Your task to perform on an android device: change the clock display to analog Image 0: 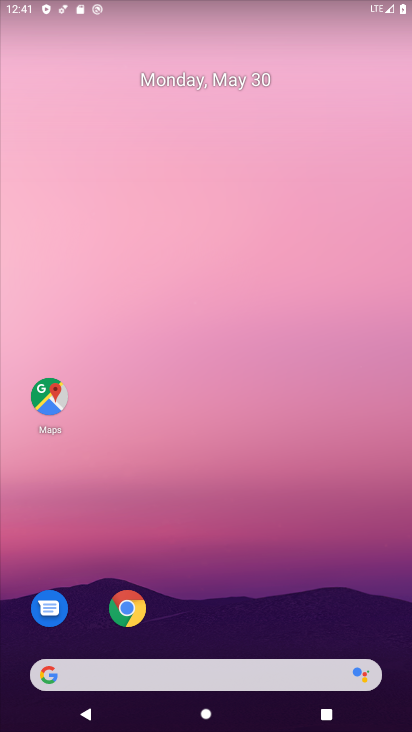
Step 0: drag from (217, 669) to (361, 25)
Your task to perform on an android device: change the clock display to analog Image 1: 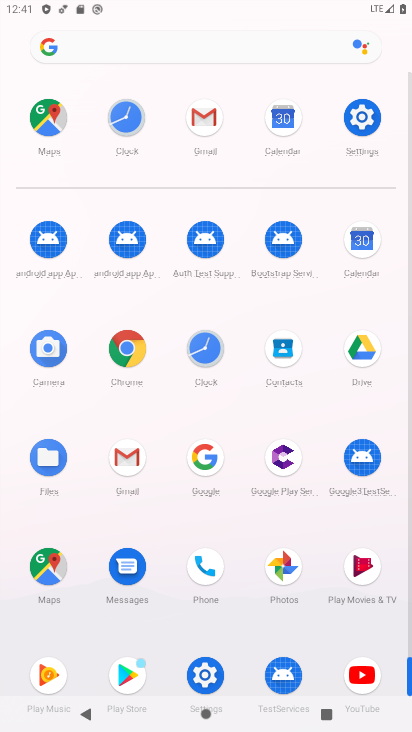
Step 1: click (196, 366)
Your task to perform on an android device: change the clock display to analog Image 2: 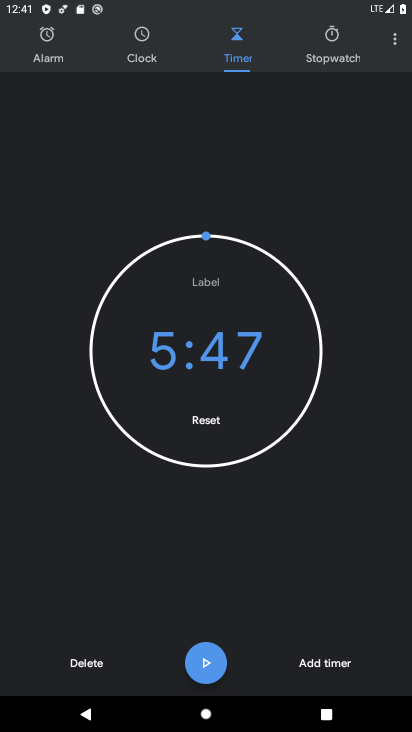
Step 2: click (100, 667)
Your task to perform on an android device: change the clock display to analog Image 3: 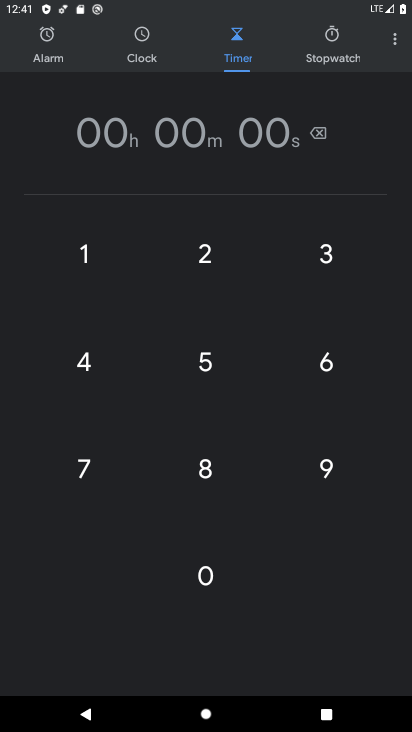
Step 3: click (397, 42)
Your task to perform on an android device: change the clock display to analog Image 4: 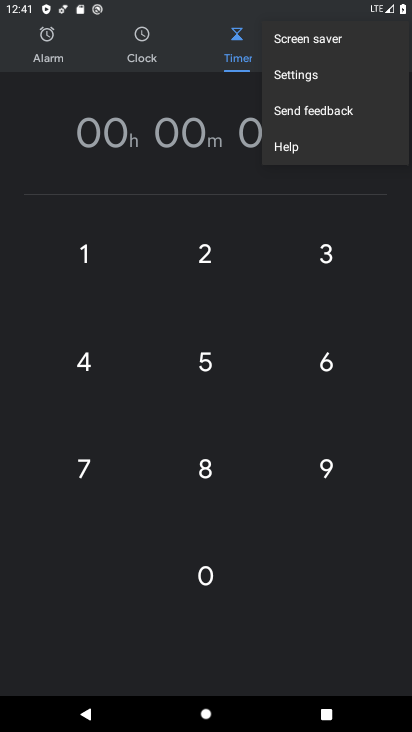
Step 4: click (294, 73)
Your task to perform on an android device: change the clock display to analog Image 5: 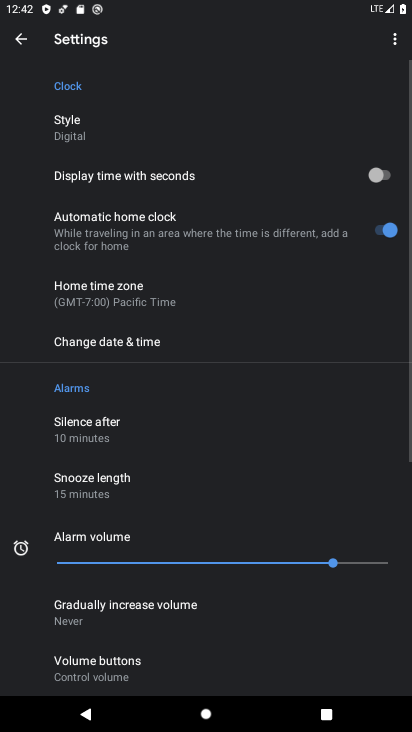
Step 5: click (101, 126)
Your task to perform on an android device: change the clock display to analog Image 6: 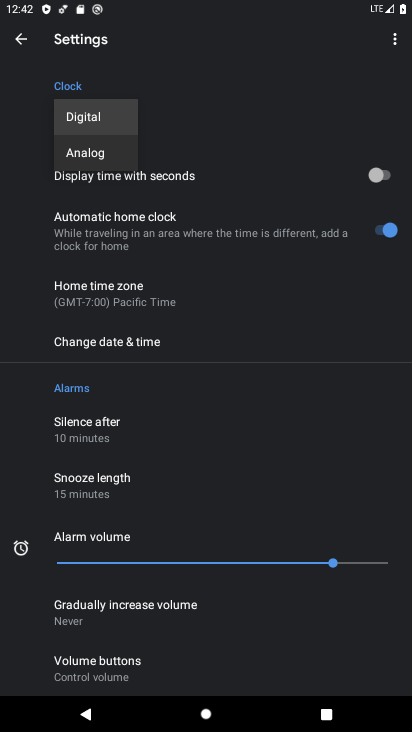
Step 6: click (112, 157)
Your task to perform on an android device: change the clock display to analog Image 7: 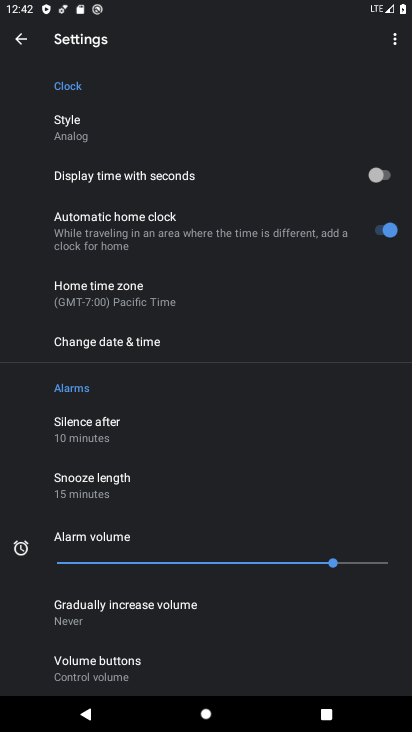
Step 7: task complete